Your task to perform on an android device: open app "LinkedIn" (install if not already installed) Image 0: 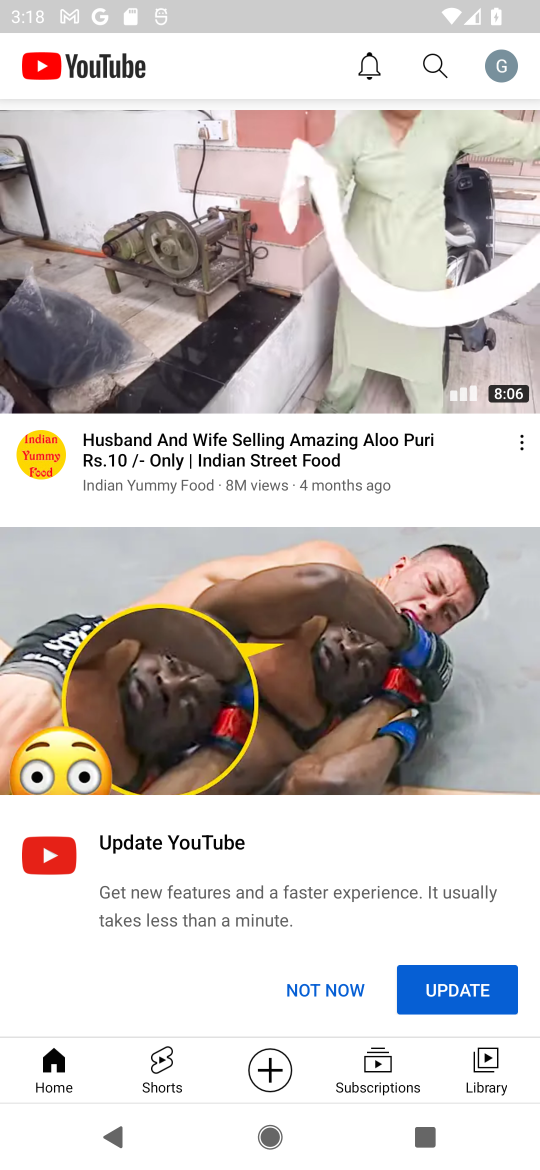
Step 0: press home button
Your task to perform on an android device: open app "LinkedIn" (install if not already installed) Image 1: 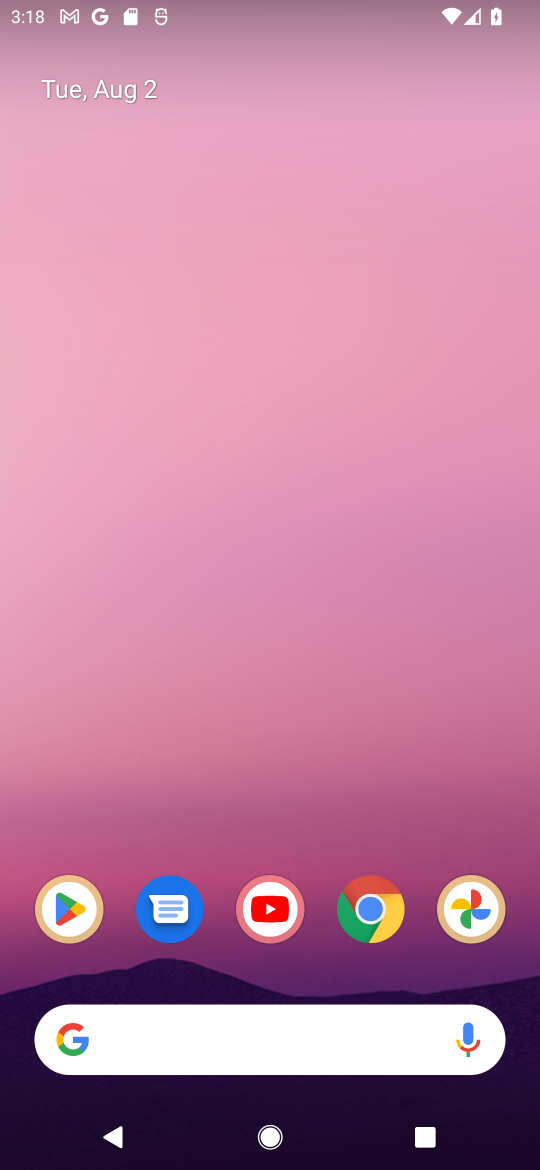
Step 1: click (77, 896)
Your task to perform on an android device: open app "LinkedIn" (install if not already installed) Image 2: 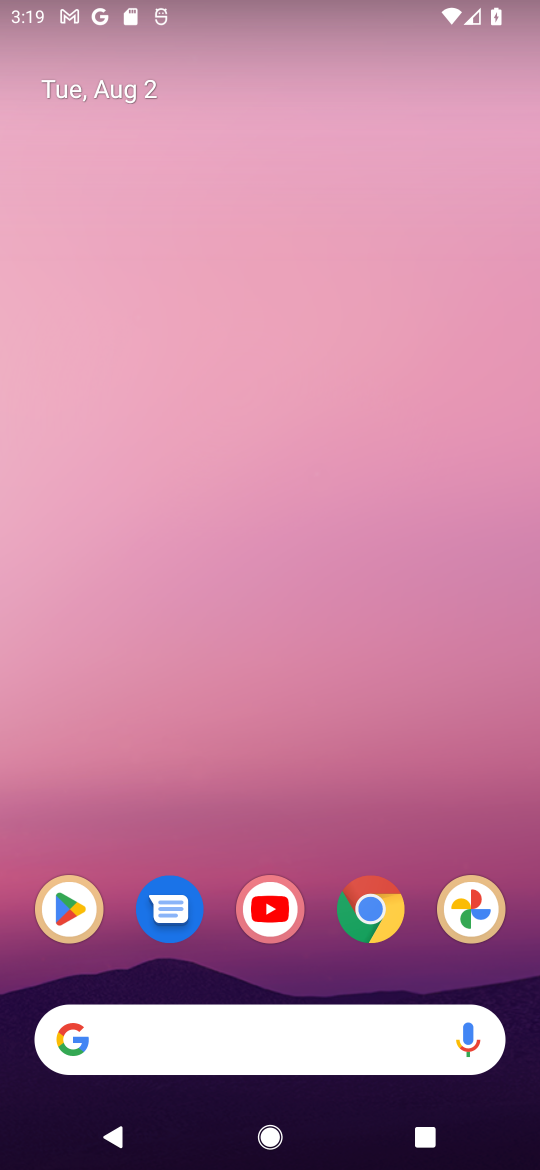
Step 2: click (56, 917)
Your task to perform on an android device: open app "LinkedIn" (install if not already installed) Image 3: 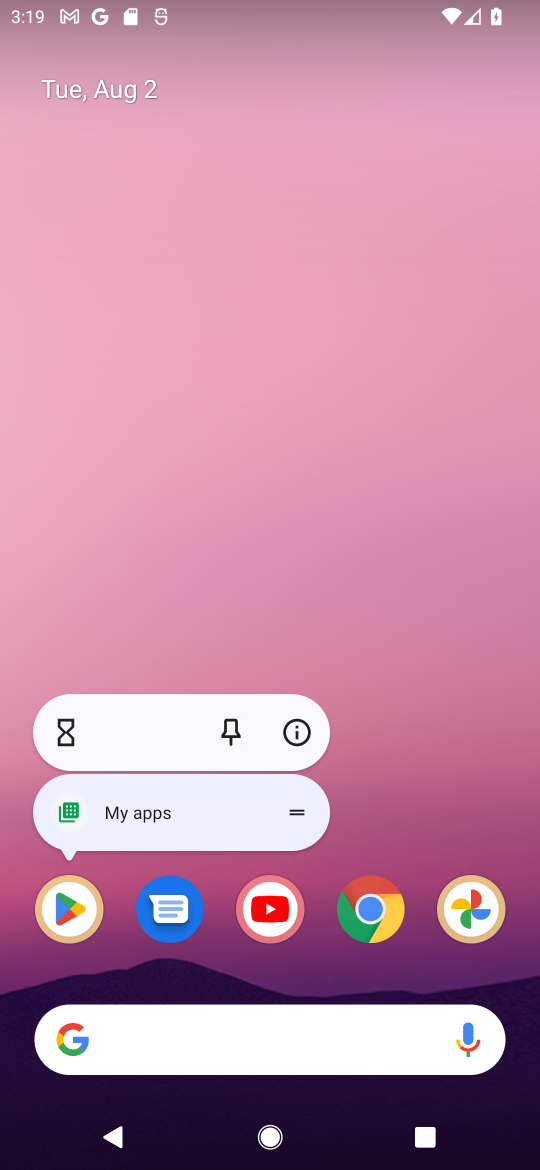
Step 3: click (301, 735)
Your task to perform on an android device: open app "LinkedIn" (install if not already installed) Image 4: 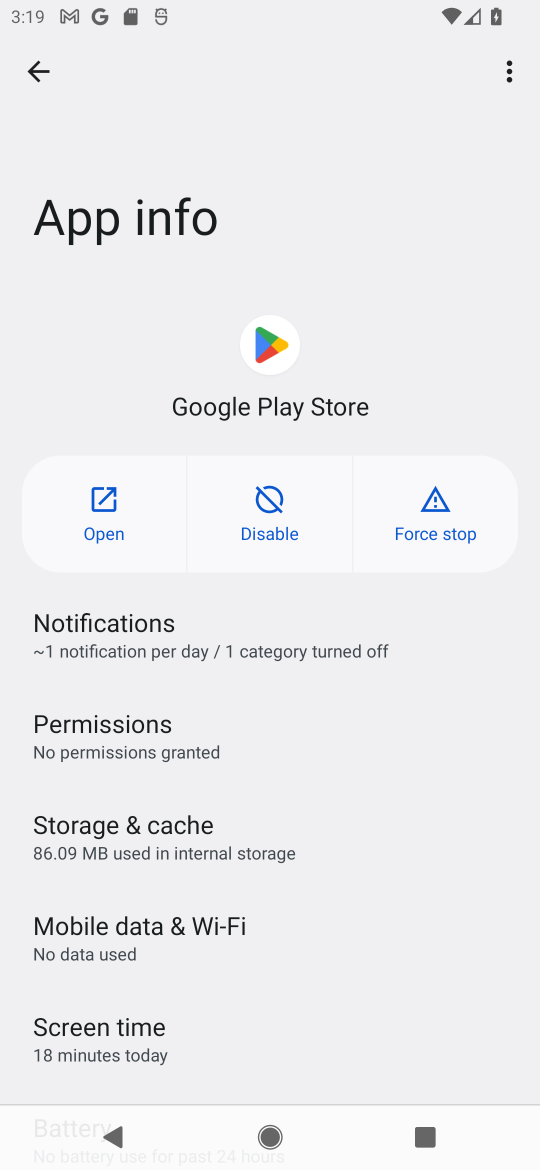
Step 4: click (110, 495)
Your task to perform on an android device: open app "LinkedIn" (install if not already installed) Image 5: 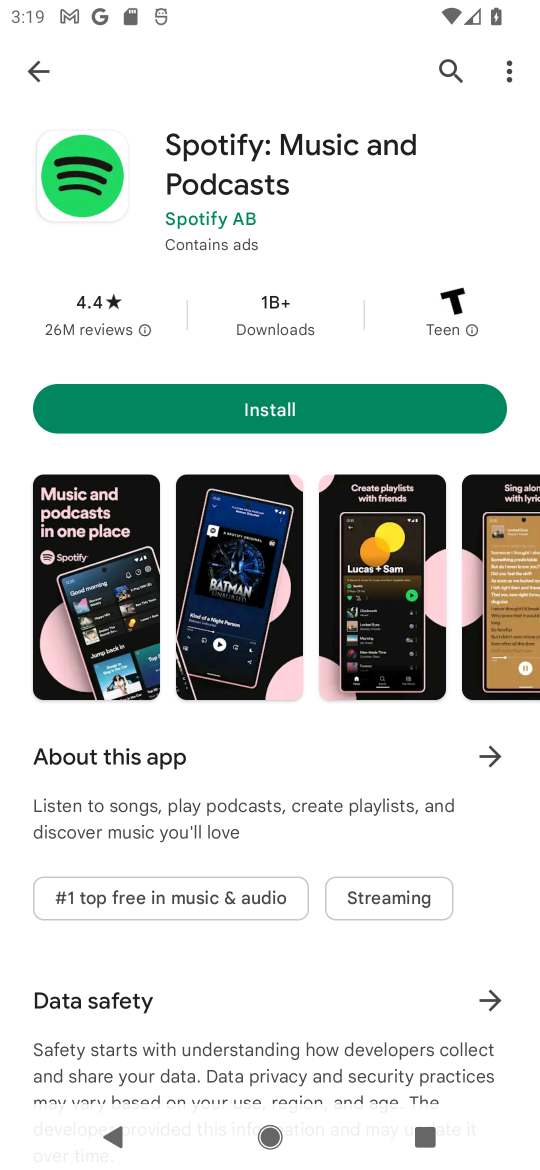
Step 5: click (448, 80)
Your task to perform on an android device: open app "LinkedIn" (install if not already installed) Image 6: 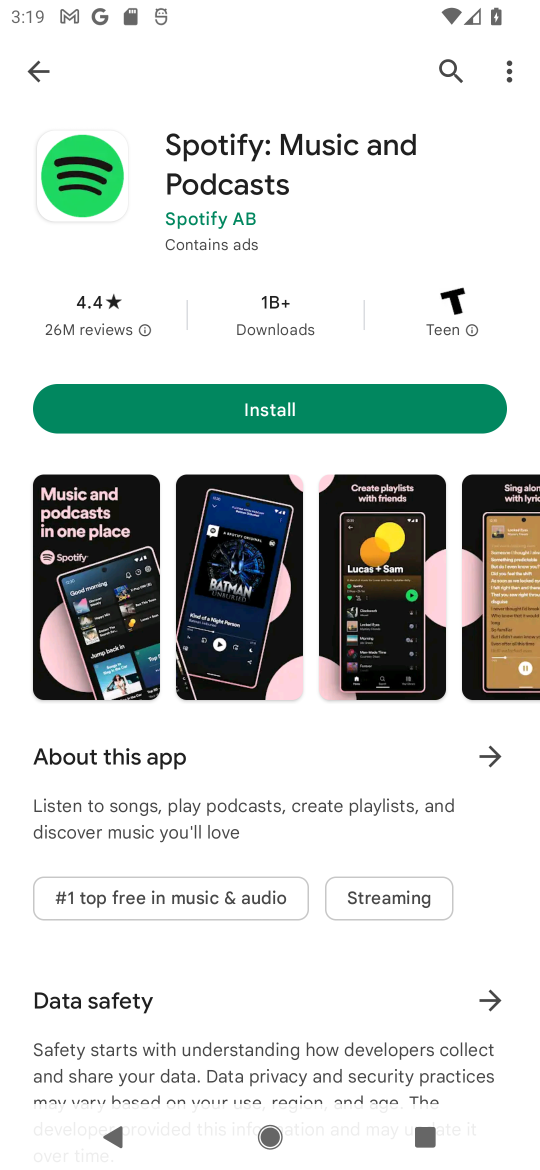
Step 6: click (458, 66)
Your task to perform on an android device: open app "LinkedIn" (install if not already installed) Image 7: 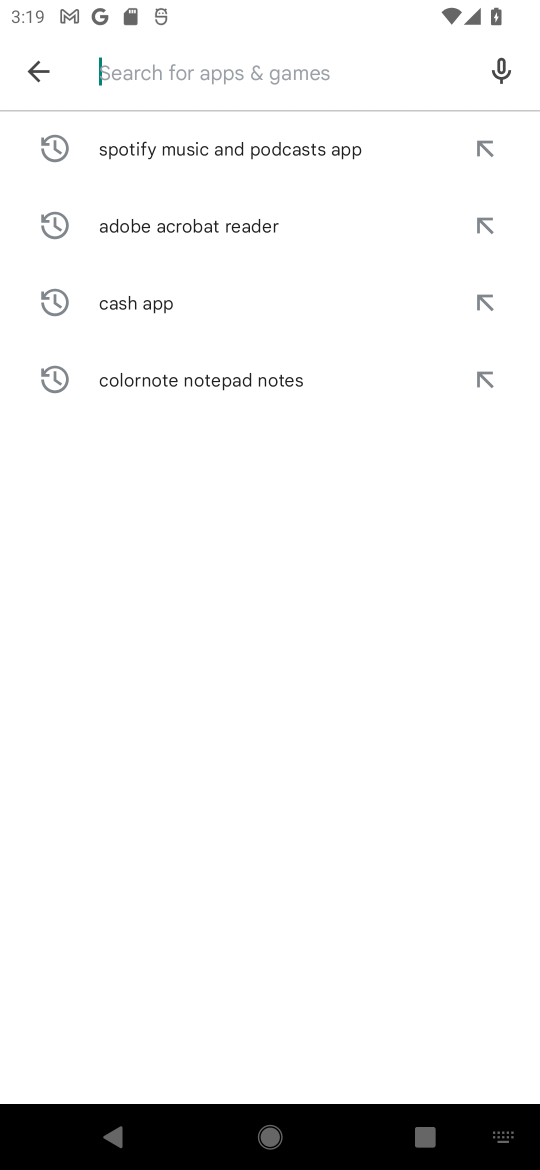
Step 7: click (361, 73)
Your task to perform on an android device: open app "LinkedIn" (install if not already installed) Image 8: 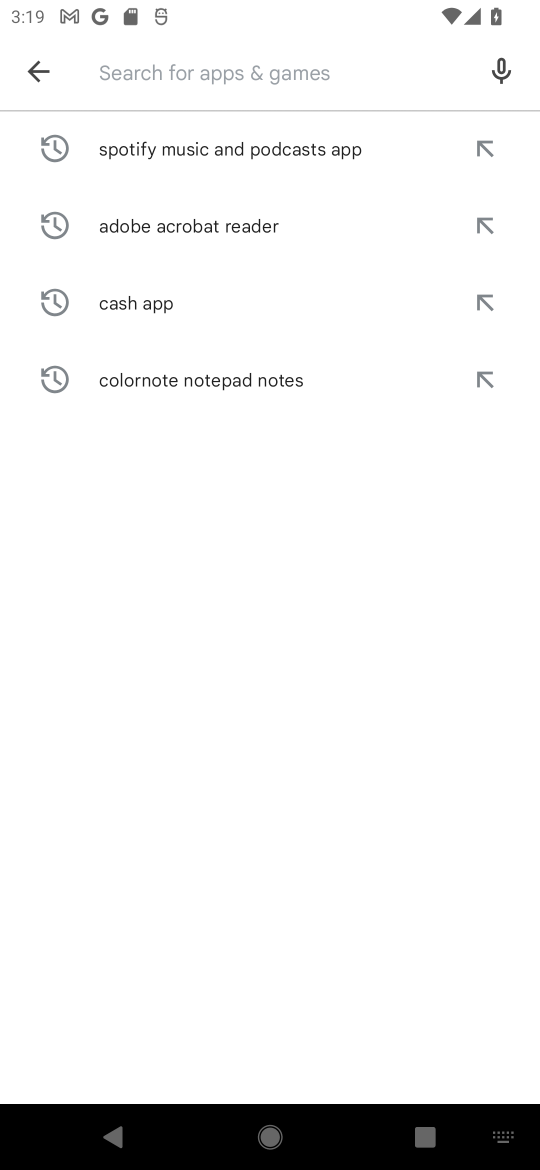
Step 8: type "LinkedIn"
Your task to perform on an android device: open app "LinkedIn" (install if not already installed) Image 9: 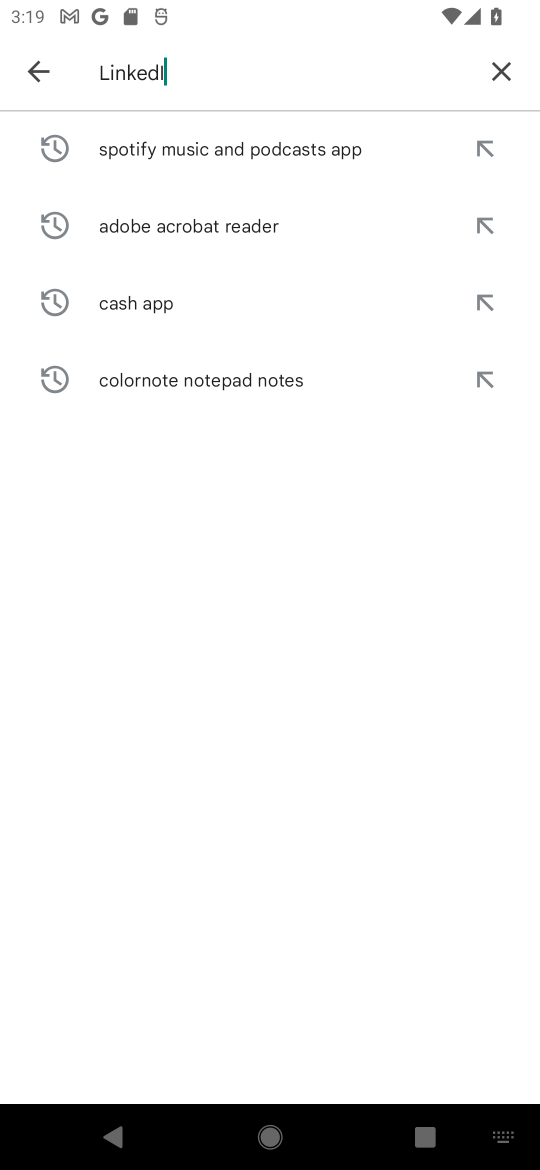
Step 9: type ""
Your task to perform on an android device: open app "LinkedIn" (install if not already installed) Image 10: 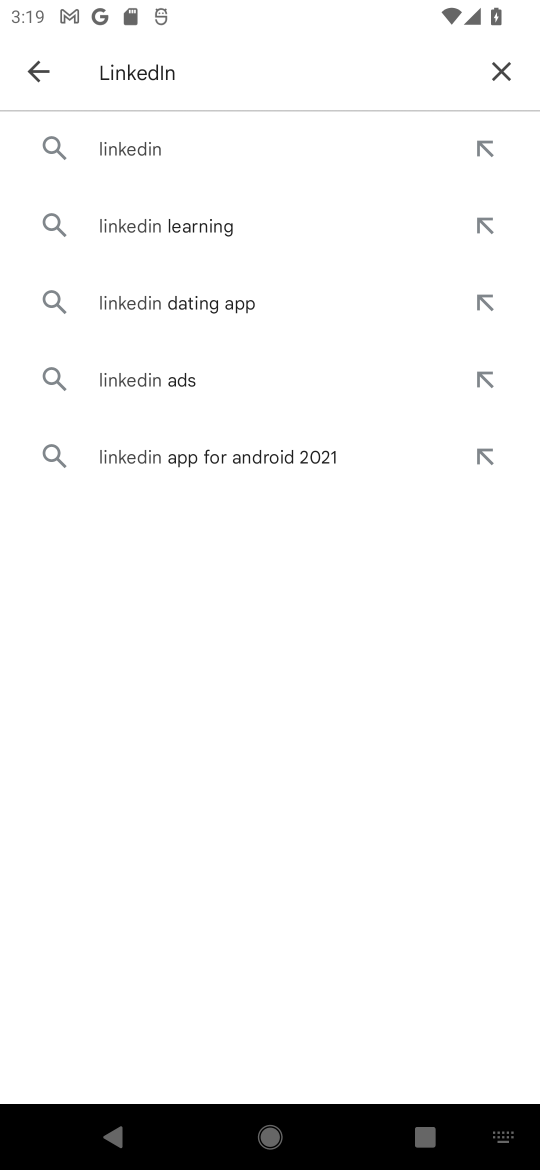
Step 10: click (136, 153)
Your task to perform on an android device: open app "LinkedIn" (install if not already installed) Image 11: 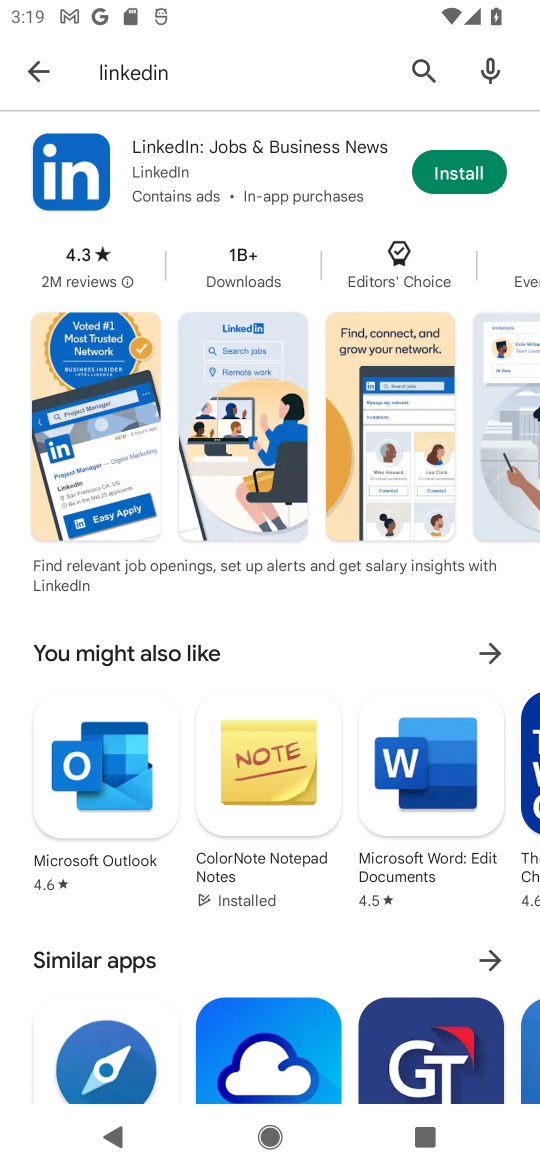
Step 11: click (442, 164)
Your task to perform on an android device: open app "LinkedIn" (install if not already installed) Image 12: 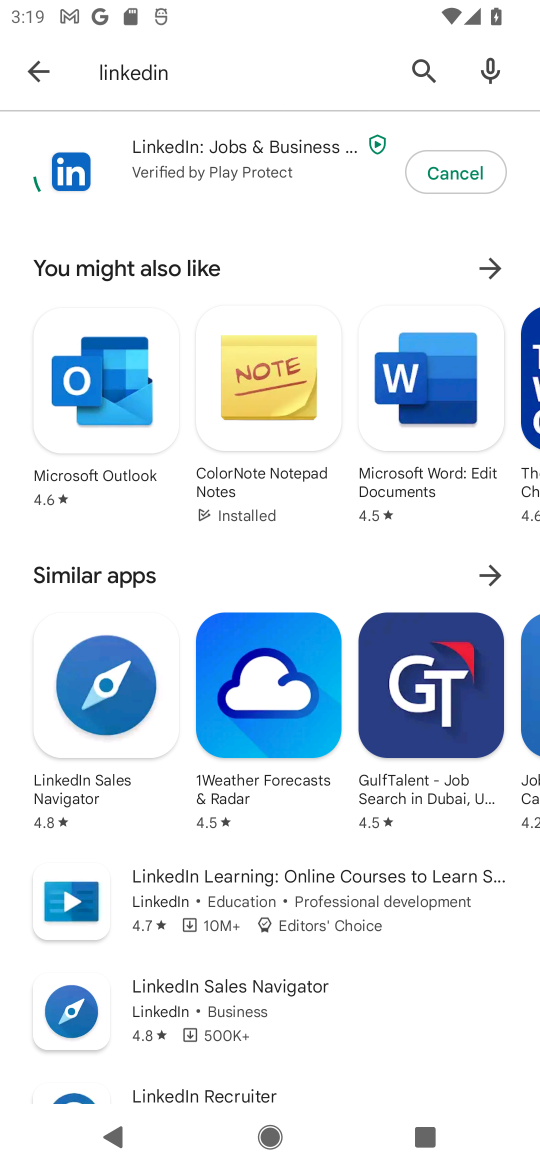
Step 12: click (188, 149)
Your task to perform on an android device: open app "LinkedIn" (install if not already installed) Image 13: 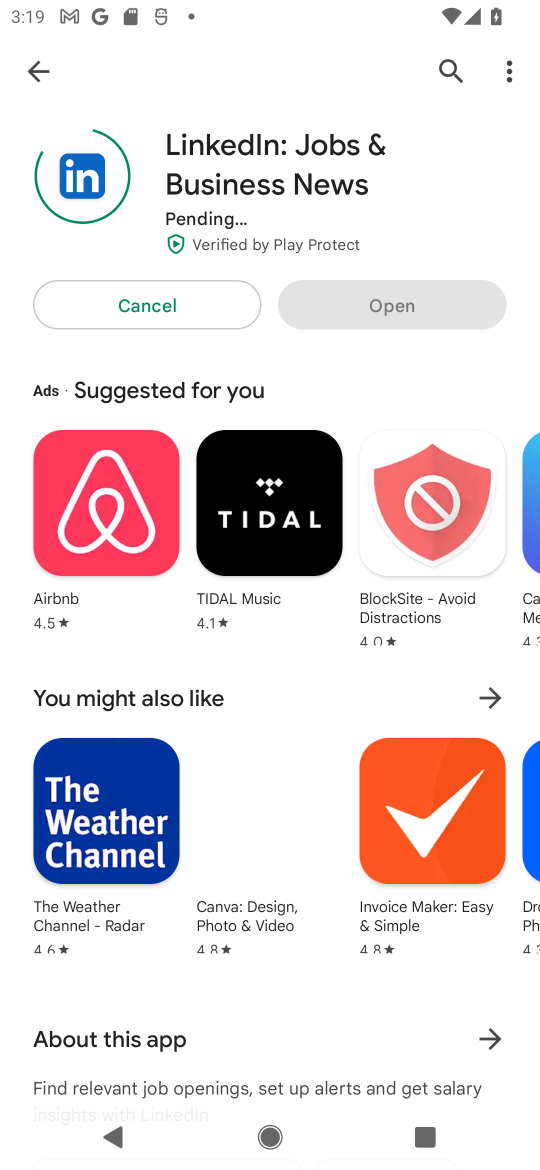
Step 13: task complete